Your task to perform on an android device: Open the web browser Image 0: 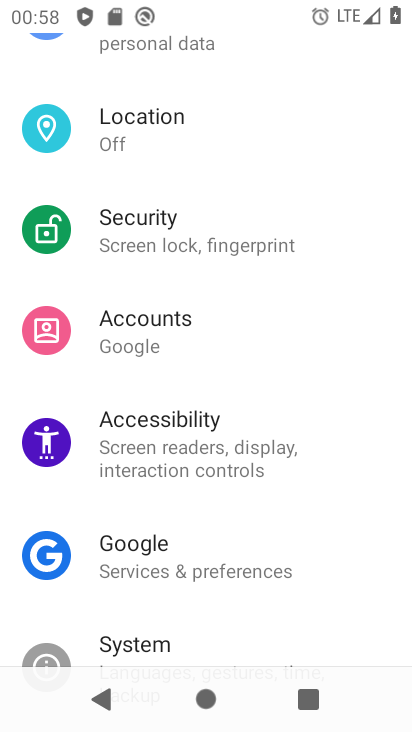
Step 0: press home button
Your task to perform on an android device: Open the web browser Image 1: 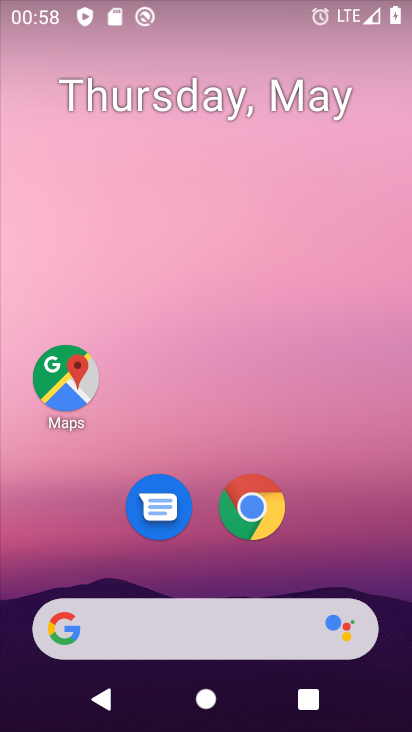
Step 1: click (250, 532)
Your task to perform on an android device: Open the web browser Image 2: 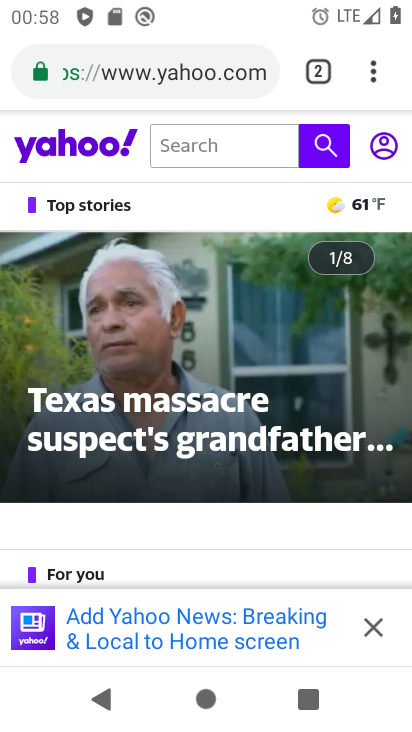
Step 2: task complete